Your task to perform on an android device: create a new album in the google photos Image 0: 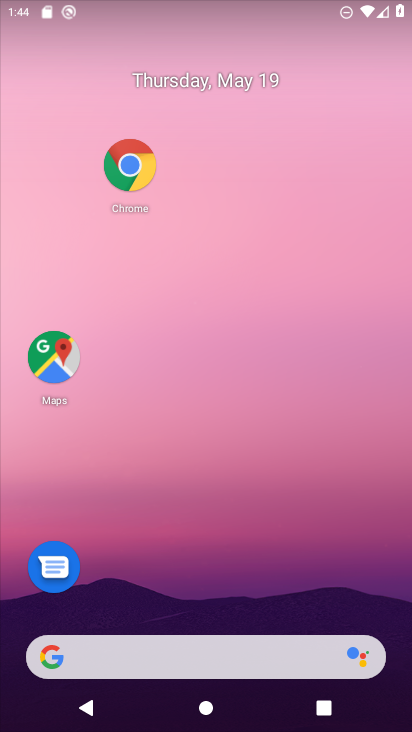
Step 0: drag from (257, 534) to (292, 43)
Your task to perform on an android device: create a new album in the google photos Image 1: 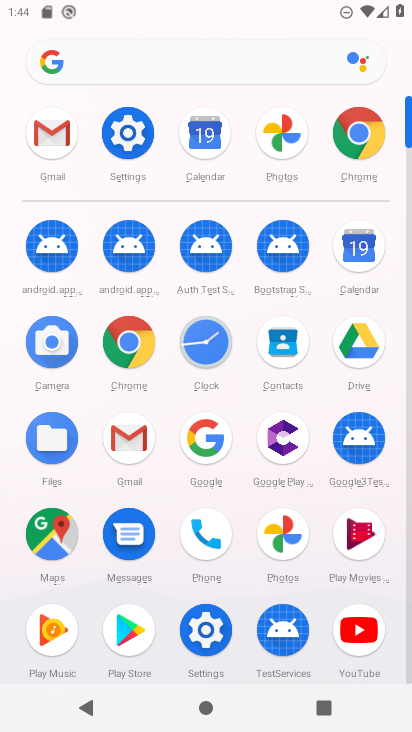
Step 1: click (273, 130)
Your task to perform on an android device: create a new album in the google photos Image 2: 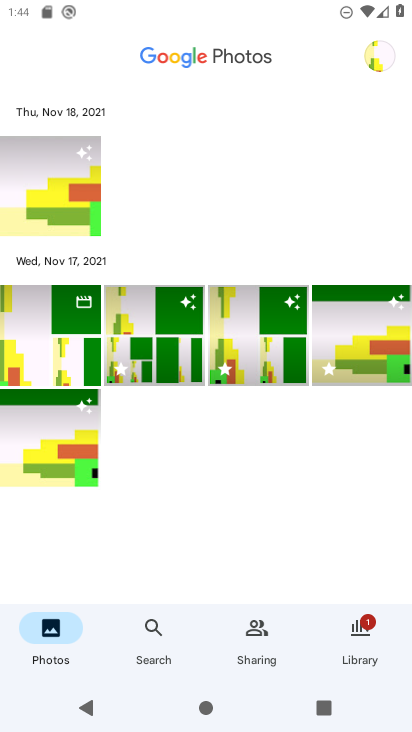
Step 2: task complete